Your task to perform on an android device: see tabs open on other devices in the chrome app Image 0: 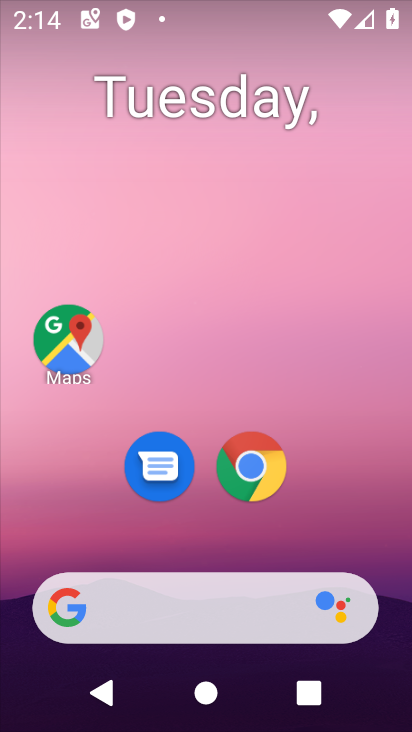
Step 0: click (277, 463)
Your task to perform on an android device: see tabs open on other devices in the chrome app Image 1: 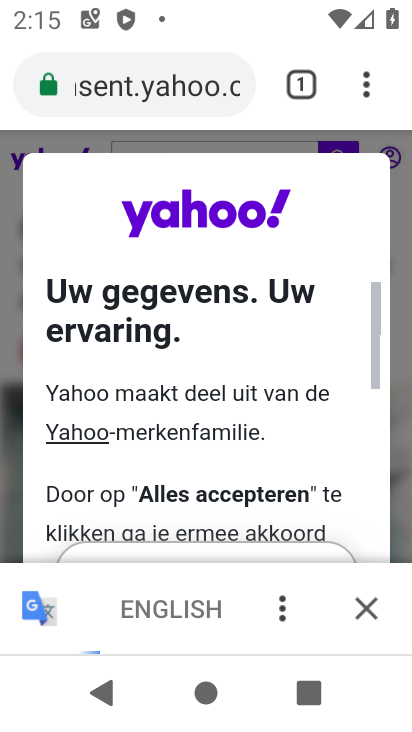
Step 1: task complete